Your task to perform on an android device: Empty the shopping cart on newegg. Search for "bose soundsport free" on newegg, select the first entry, add it to the cart, then select checkout. Image 0: 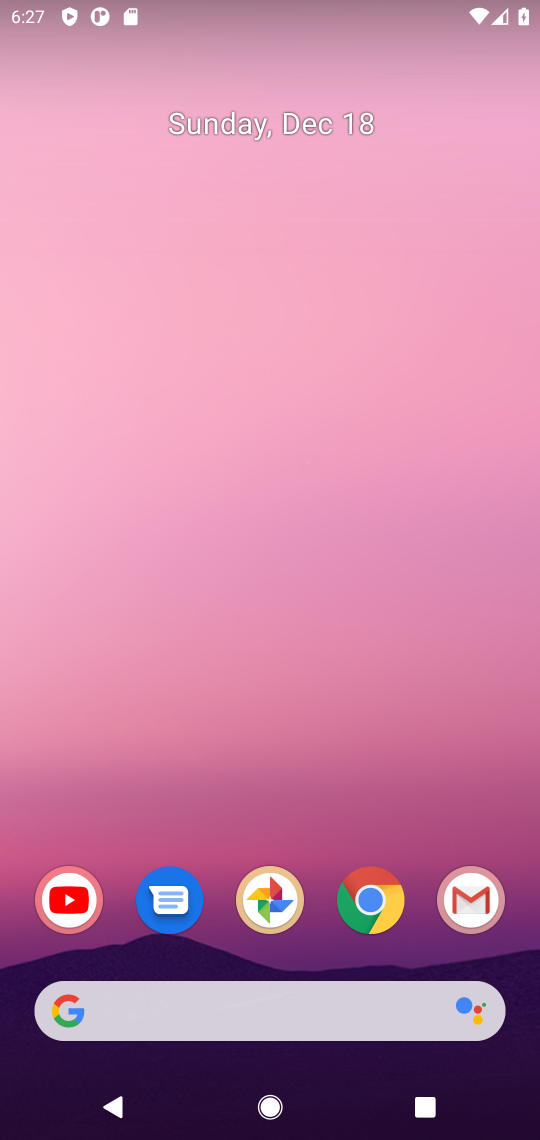
Step 0: click (370, 907)
Your task to perform on an android device: Empty the shopping cart on newegg. Search for "bose soundsport free" on newegg, select the first entry, add it to the cart, then select checkout. Image 1: 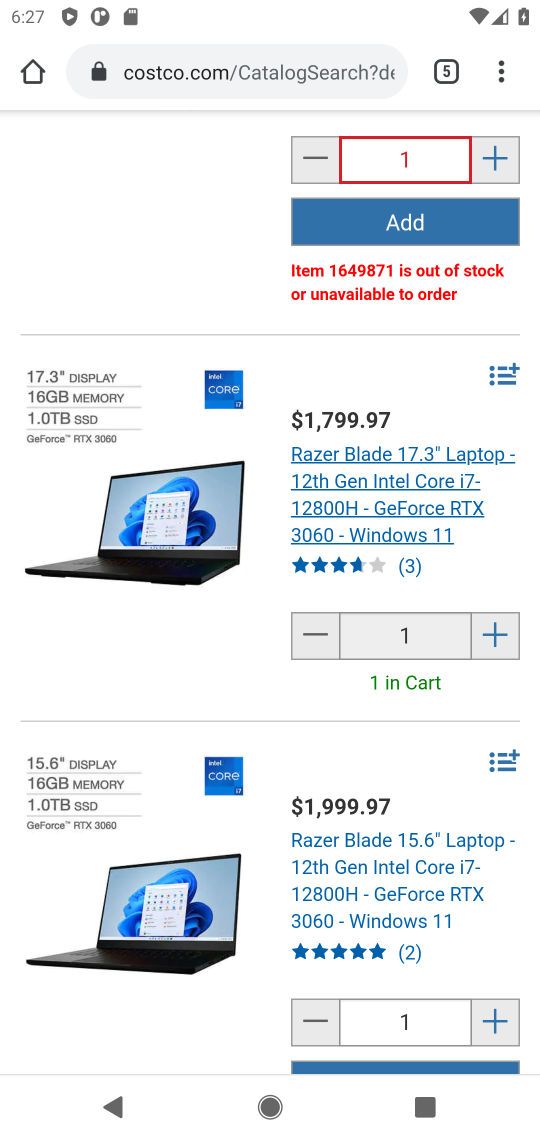
Step 1: click (448, 53)
Your task to perform on an android device: Empty the shopping cart on newegg. Search for "bose soundsport free" on newegg, select the first entry, add it to the cart, then select checkout. Image 2: 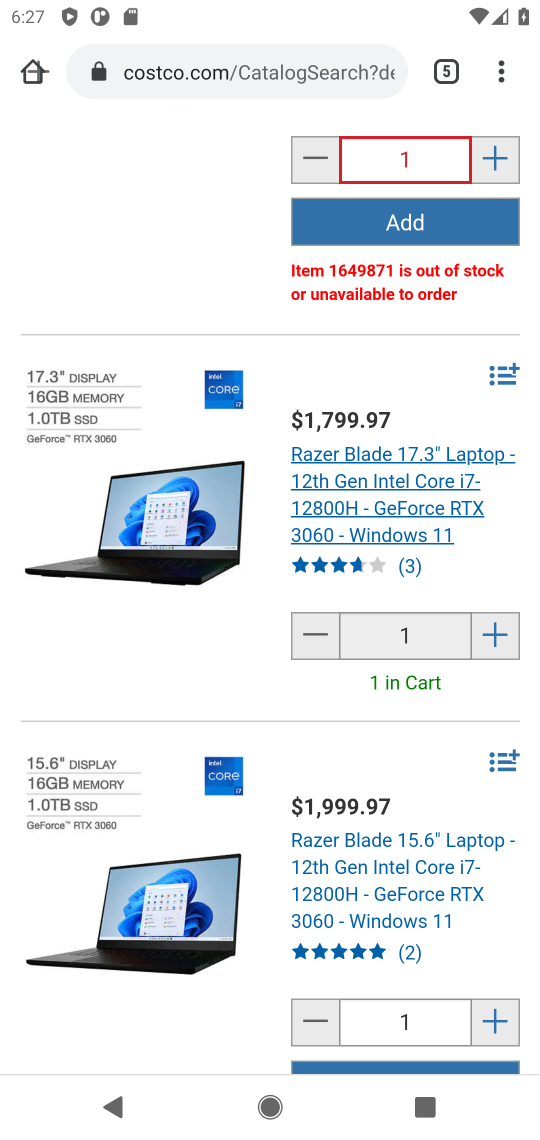
Step 2: click (442, 78)
Your task to perform on an android device: Empty the shopping cart on newegg. Search for "bose soundsport free" on newegg, select the first entry, add it to the cart, then select checkout. Image 3: 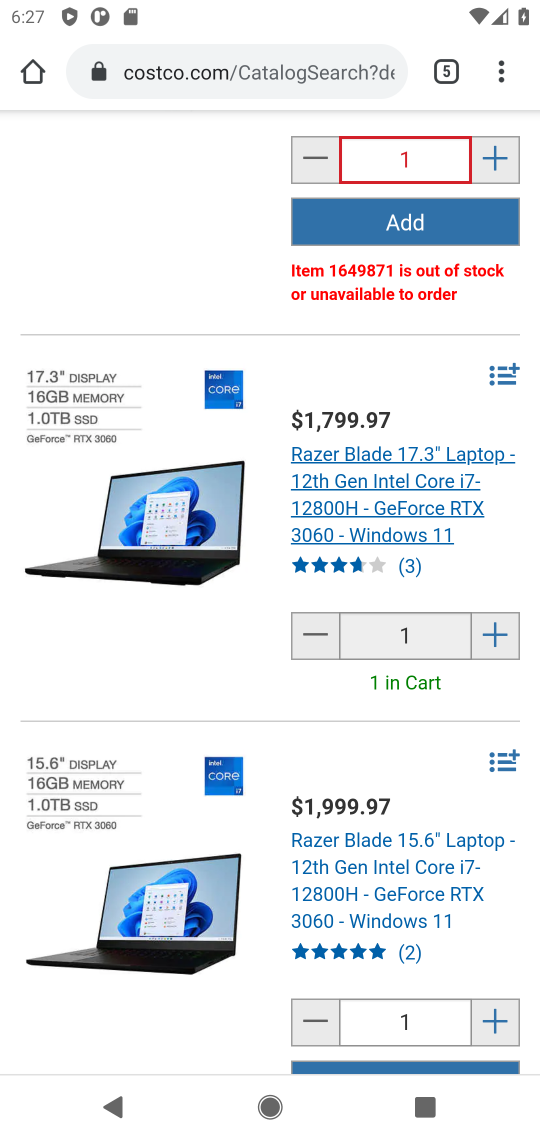
Step 3: click (443, 64)
Your task to perform on an android device: Empty the shopping cart on newegg. Search for "bose soundsport free" on newegg, select the first entry, add it to the cart, then select checkout. Image 4: 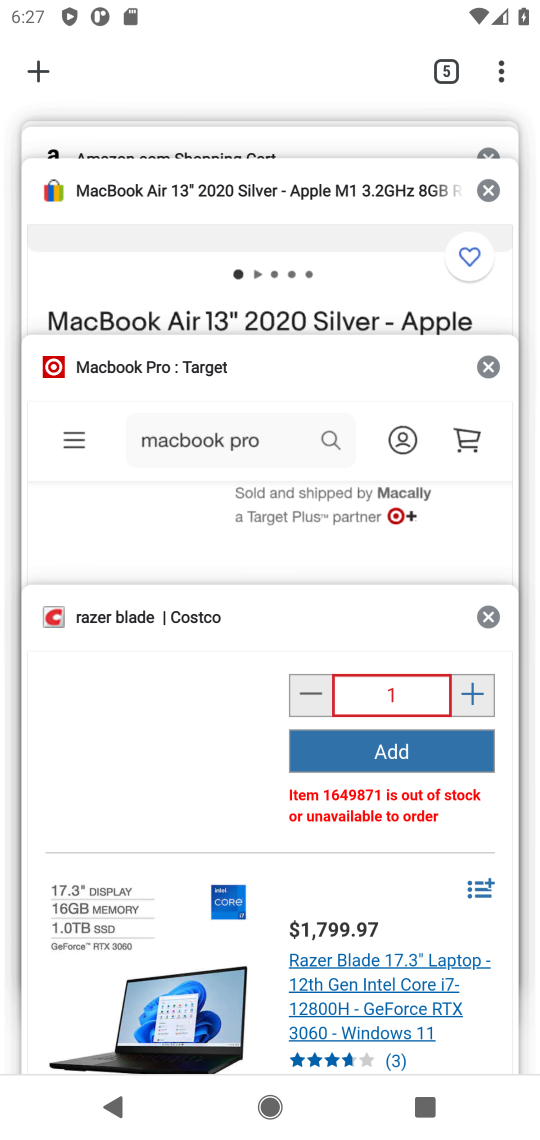
Step 4: drag from (277, 148) to (282, 518)
Your task to perform on an android device: Empty the shopping cart on newegg. Search for "bose soundsport free" on newegg, select the first entry, add it to the cart, then select checkout. Image 5: 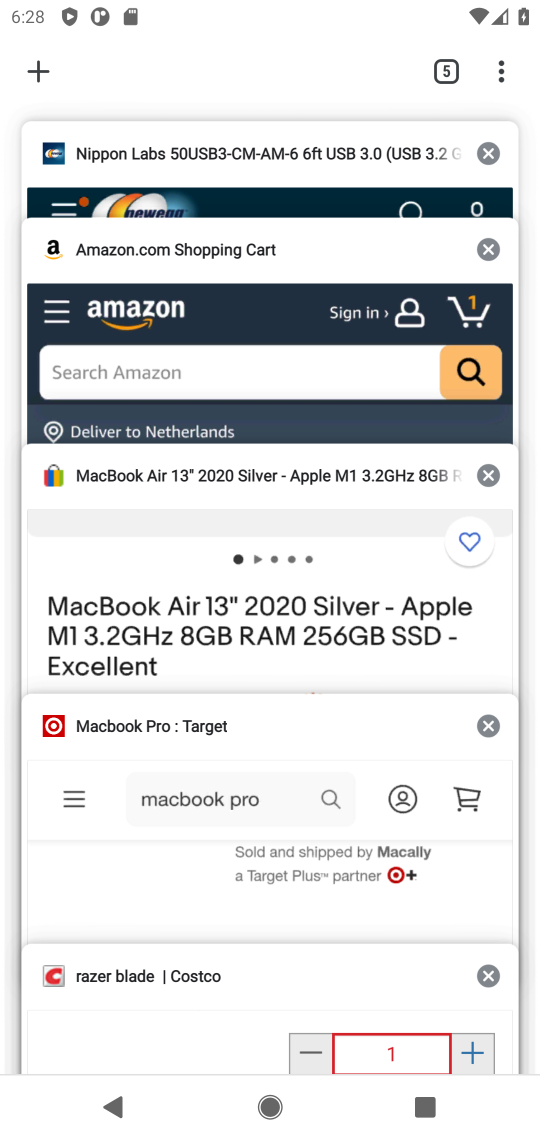
Step 5: click (271, 178)
Your task to perform on an android device: Empty the shopping cart on newegg. Search for "bose soundsport free" on newegg, select the first entry, add it to the cart, then select checkout. Image 6: 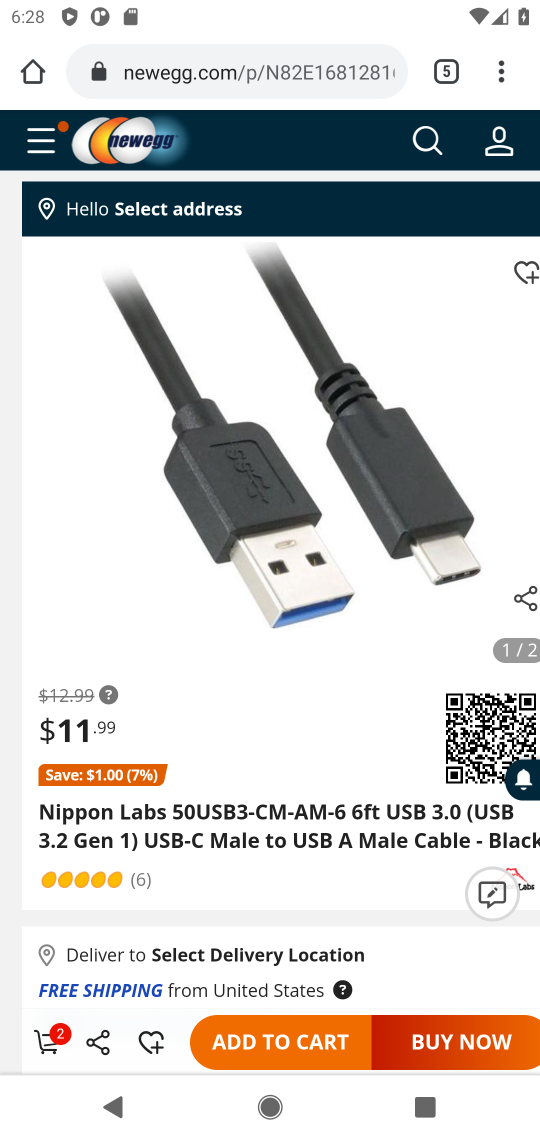
Step 6: click (45, 1036)
Your task to perform on an android device: Empty the shopping cart on newegg. Search for "bose soundsport free" on newegg, select the first entry, add it to the cart, then select checkout. Image 7: 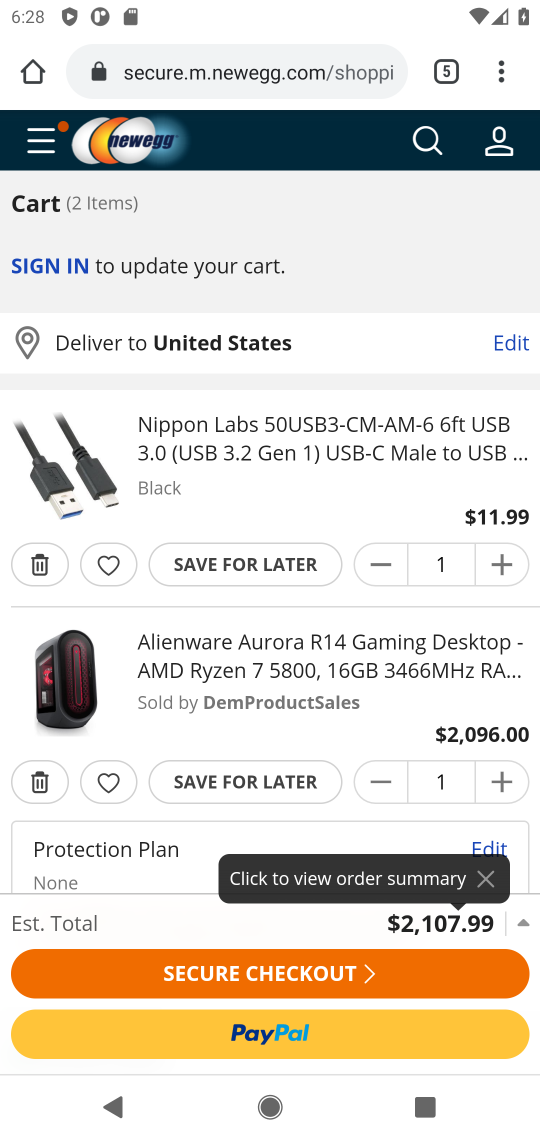
Step 7: click (36, 558)
Your task to perform on an android device: Empty the shopping cart on newegg. Search for "bose soundsport free" on newegg, select the first entry, add it to the cart, then select checkout. Image 8: 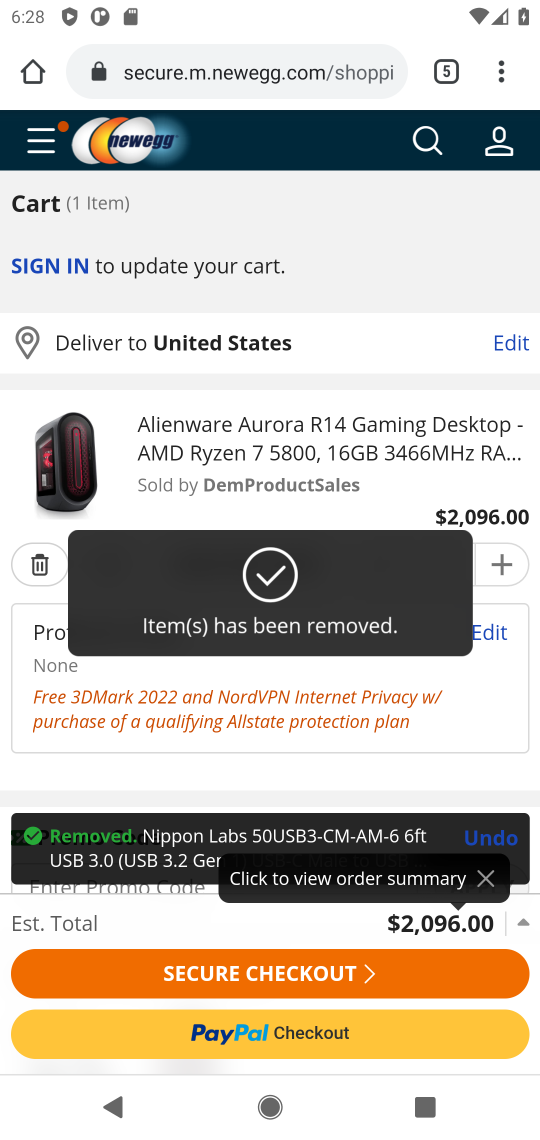
Step 8: click (30, 560)
Your task to perform on an android device: Empty the shopping cart on newegg. Search for "bose soundsport free" on newegg, select the first entry, add it to the cart, then select checkout. Image 9: 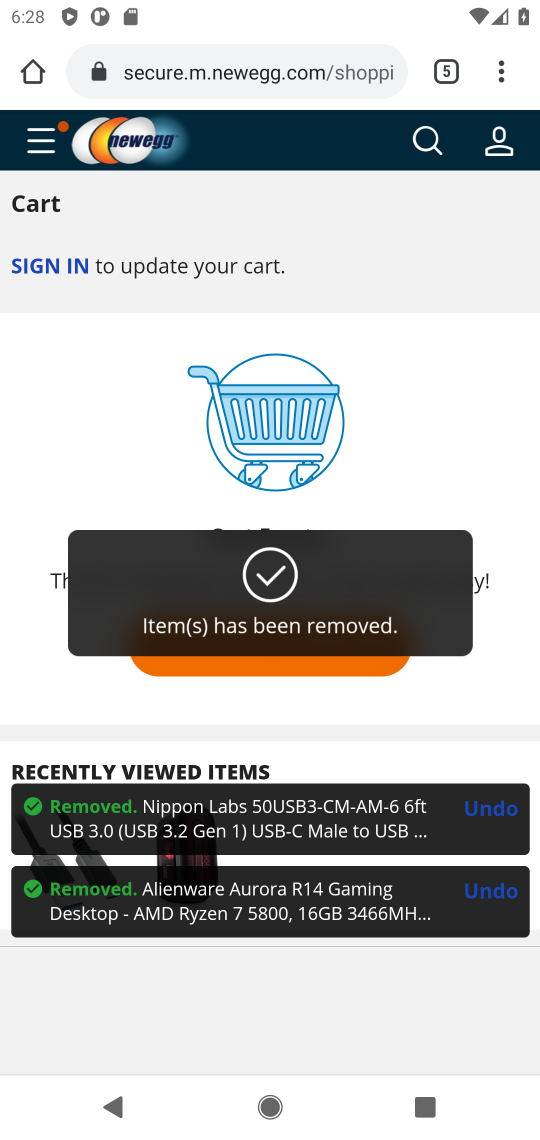
Step 9: click (434, 153)
Your task to perform on an android device: Empty the shopping cart on newegg. Search for "bose soundsport free" on newegg, select the first entry, add it to the cart, then select checkout. Image 10: 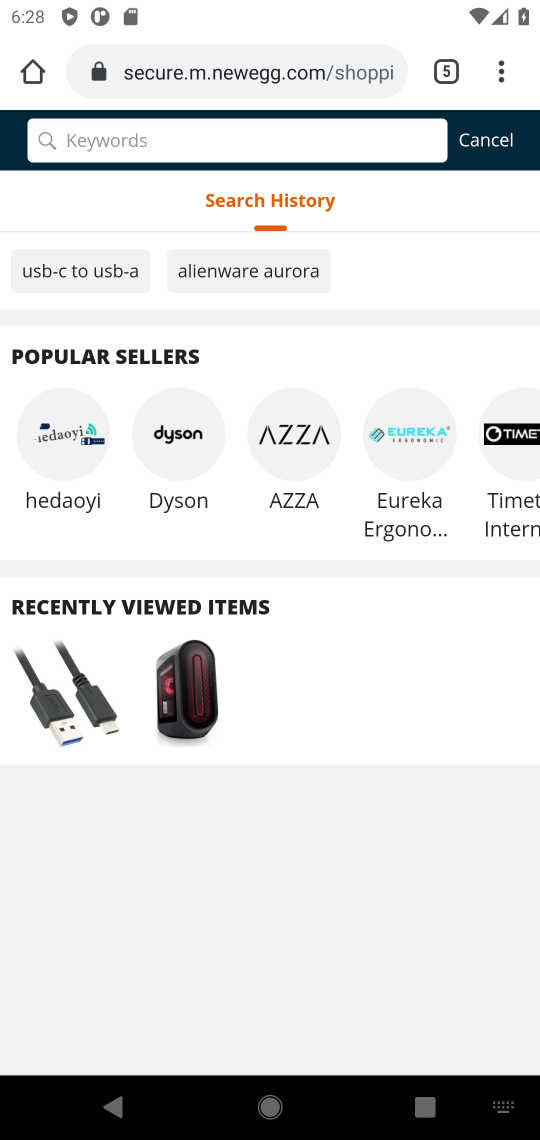
Step 10: type "bose soundsport free"
Your task to perform on an android device: Empty the shopping cart on newegg. Search for "bose soundsport free" on newegg, select the first entry, add it to the cart, then select checkout. Image 11: 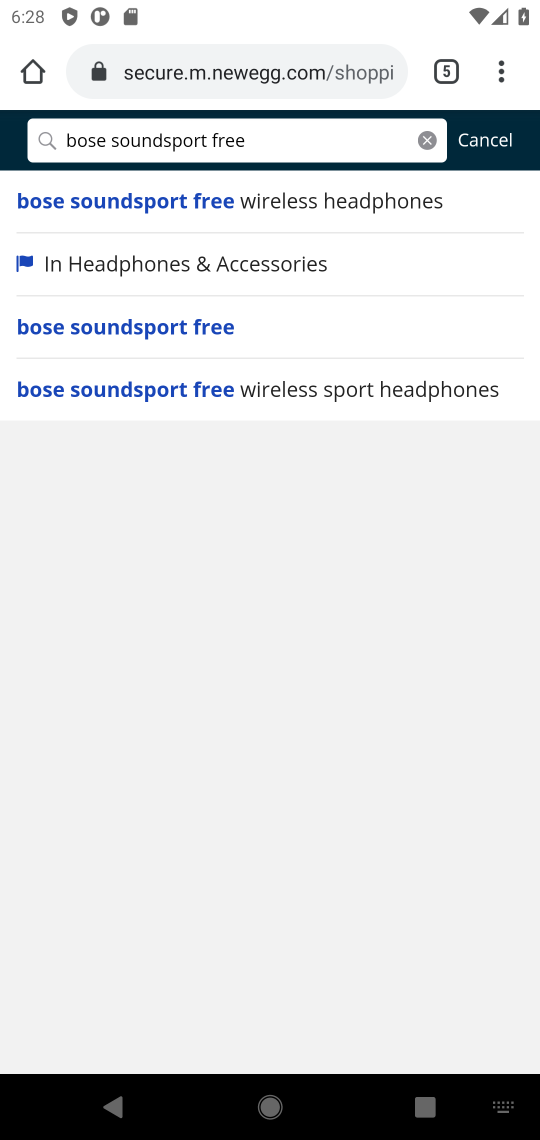
Step 11: click (109, 209)
Your task to perform on an android device: Empty the shopping cart on newegg. Search for "bose soundsport free" on newegg, select the first entry, add it to the cart, then select checkout. Image 12: 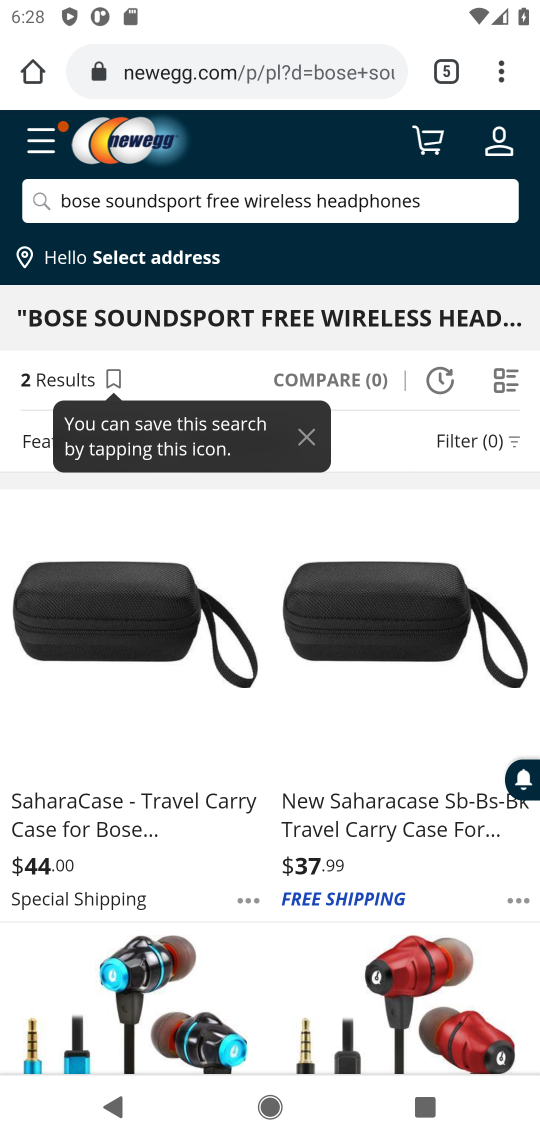
Step 12: task complete